Your task to perform on an android device: Do I have any events this weekend? Image 0: 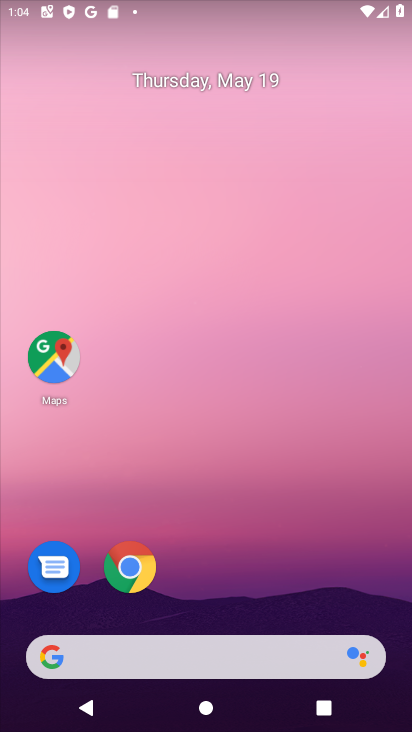
Step 0: drag from (237, 417) to (237, 74)
Your task to perform on an android device: Do I have any events this weekend? Image 1: 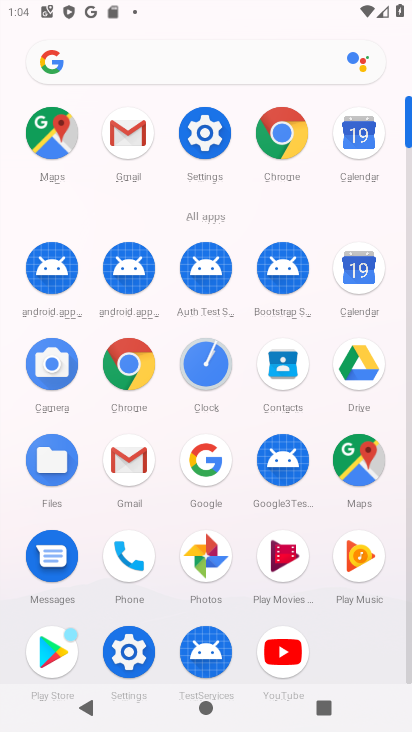
Step 1: click (379, 273)
Your task to perform on an android device: Do I have any events this weekend? Image 2: 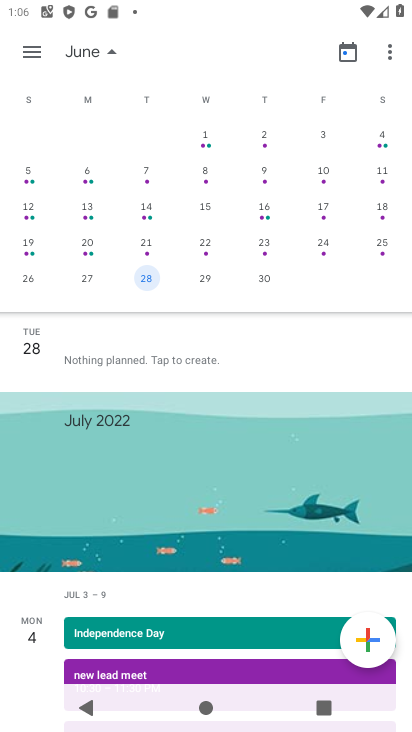
Step 2: task complete